Your task to perform on an android device: Open Google Image 0: 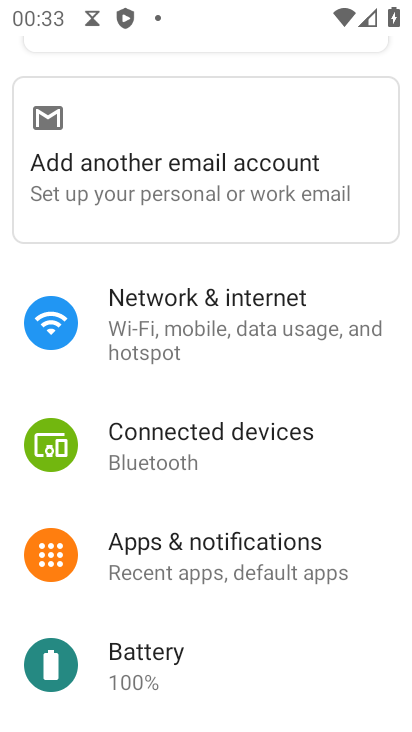
Step 0: drag from (307, 468) to (288, 228)
Your task to perform on an android device: Open Google Image 1: 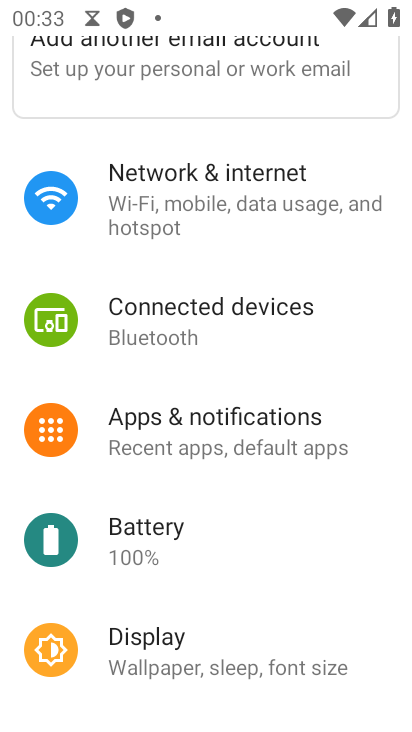
Step 1: press home button
Your task to perform on an android device: Open Google Image 2: 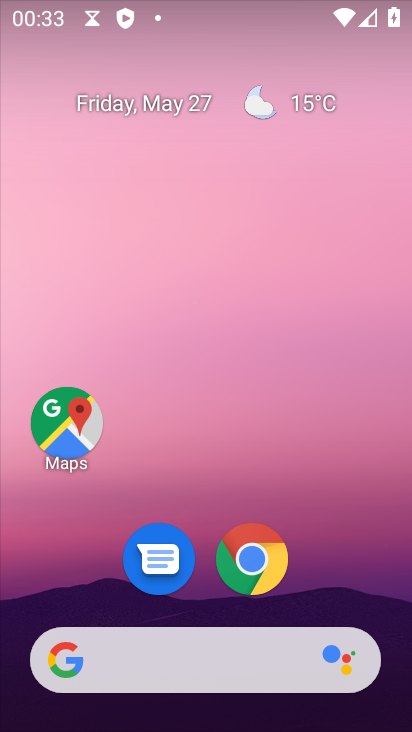
Step 2: drag from (342, 491) to (283, 48)
Your task to perform on an android device: Open Google Image 3: 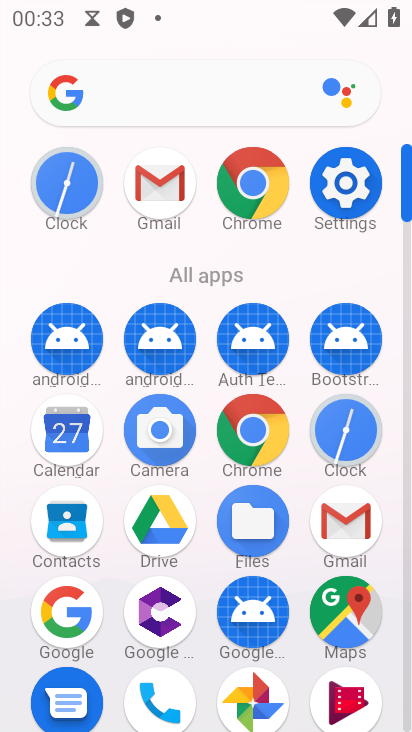
Step 3: click (49, 613)
Your task to perform on an android device: Open Google Image 4: 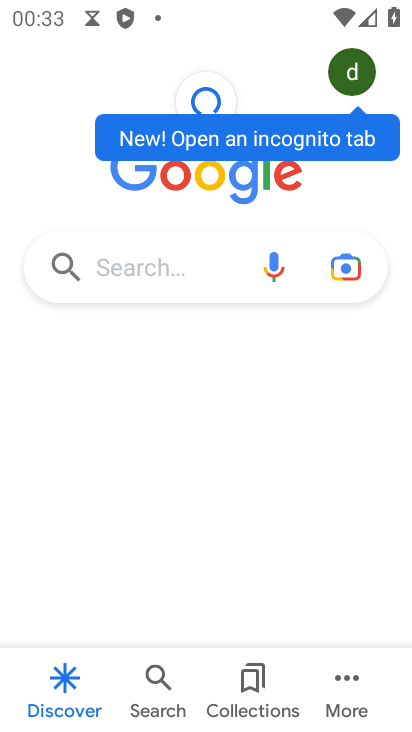
Step 4: task complete